Your task to perform on an android device: Search for Mexican restaurants on Maps Image 0: 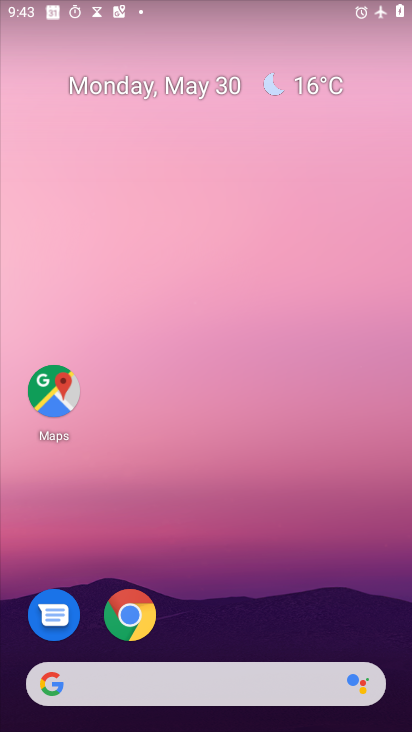
Step 0: drag from (305, 606) to (375, 105)
Your task to perform on an android device: Search for Mexican restaurants on Maps Image 1: 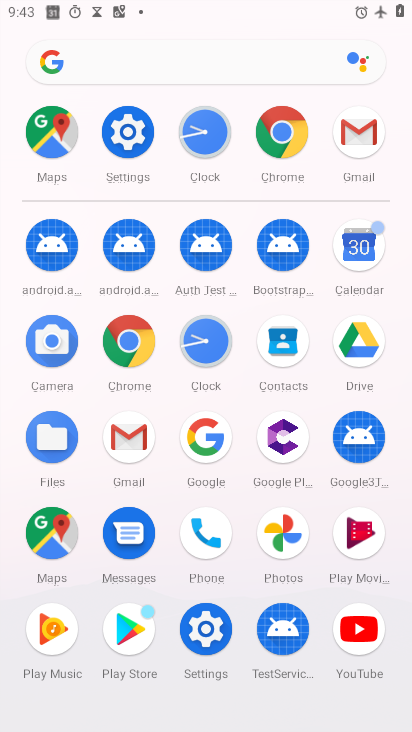
Step 1: click (41, 137)
Your task to perform on an android device: Search for Mexican restaurants on Maps Image 2: 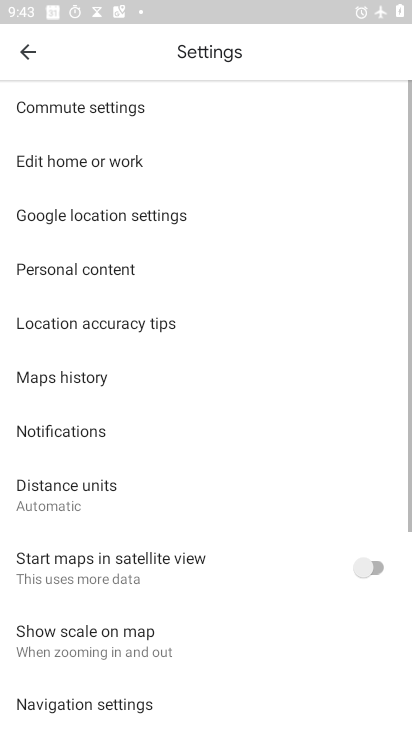
Step 2: click (34, 50)
Your task to perform on an android device: Search for Mexican restaurants on Maps Image 3: 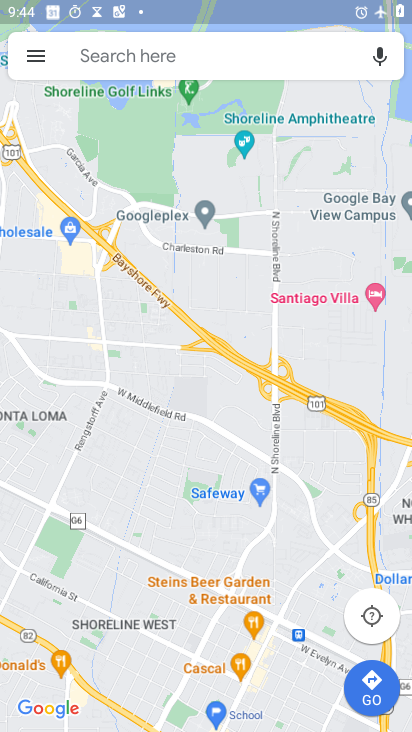
Step 3: click (158, 63)
Your task to perform on an android device: Search for Mexican restaurants on Maps Image 4: 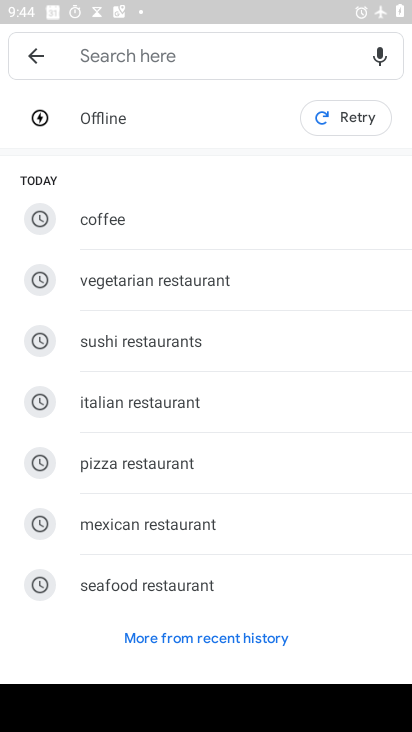
Step 4: click (171, 525)
Your task to perform on an android device: Search for Mexican restaurants on Maps Image 5: 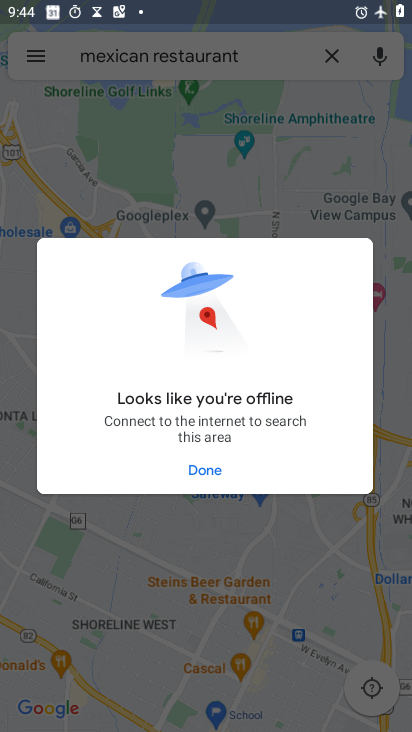
Step 5: task complete